Your task to perform on an android device: Go to internet settings Image 0: 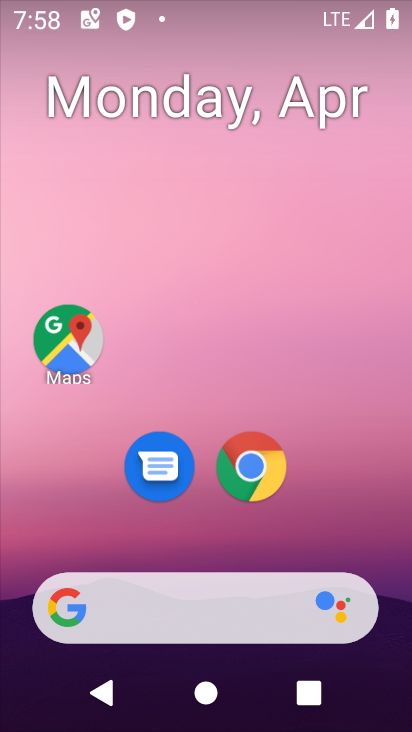
Step 0: press home button
Your task to perform on an android device: Go to internet settings Image 1: 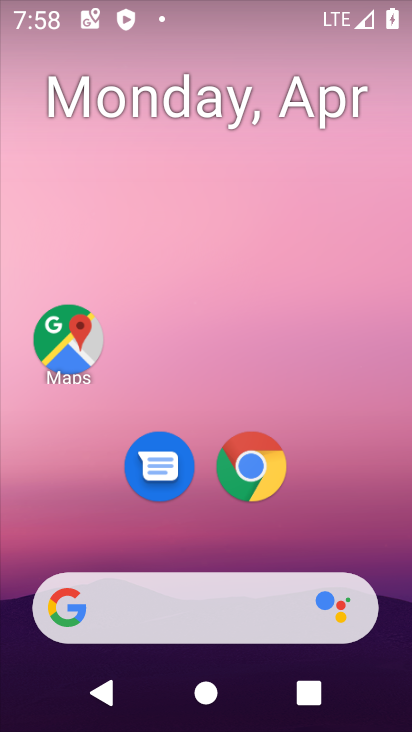
Step 1: click (160, 13)
Your task to perform on an android device: Go to internet settings Image 2: 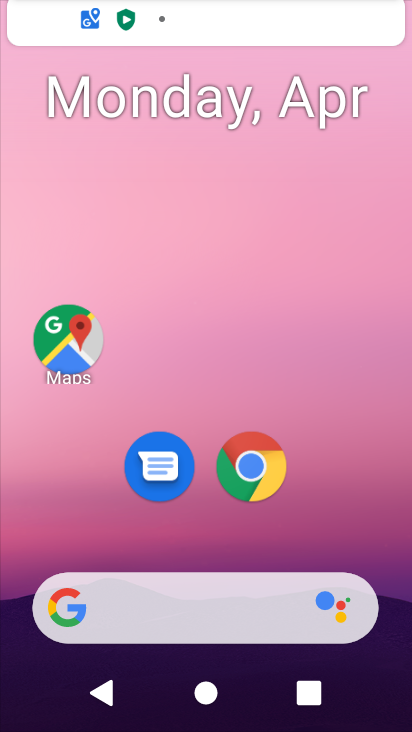
Step 2: click (319, 506)
Your task to perform on an android device: Go to internet settings Image 3: 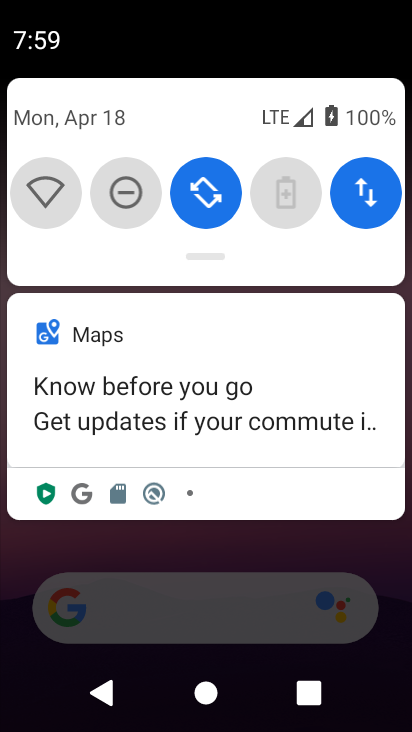
Step 3: drag from (230, 538) to (317, 92)
Your task to perform on an android device: Go to internet settings Image 4: 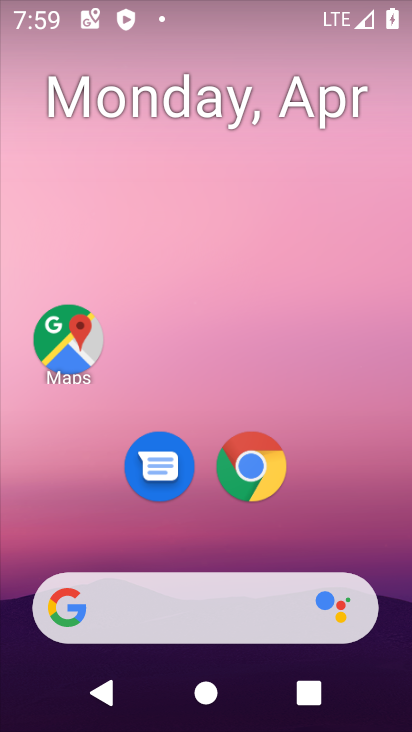
Step 4: drag from (220, 422) to (230, 2)
Your task to perform on an android device: Go to internet settings Image 5: 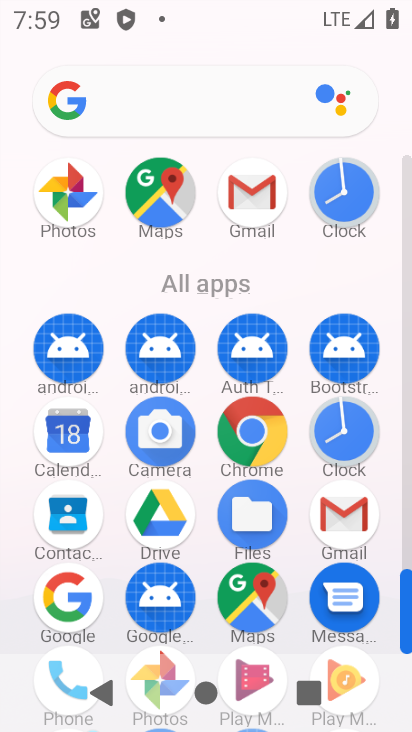
Step 5: drag from (212, 638) to (204, 202)
Your task to perform on an android device: Go to internet settings Image 6: 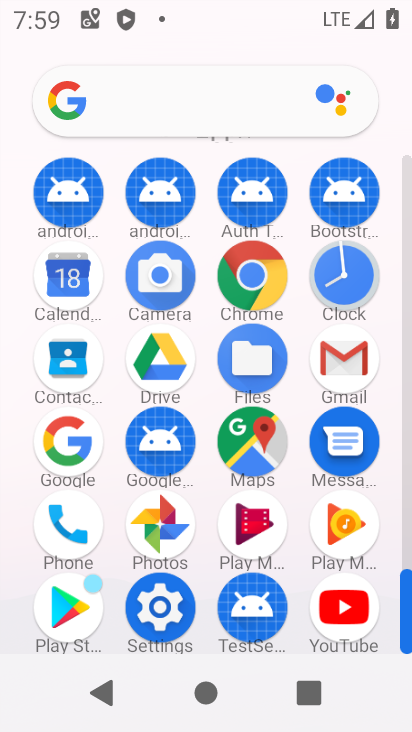
Step 6: click (160, 610)
Your task to perform on an android device: Go to internet settings Image 7: 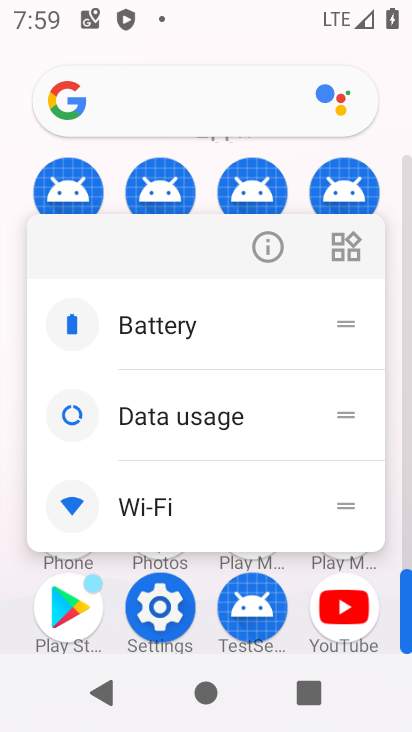
Step 7: click (260, 234)
Your task to perform on an android device: Go to internet settings Image 8: 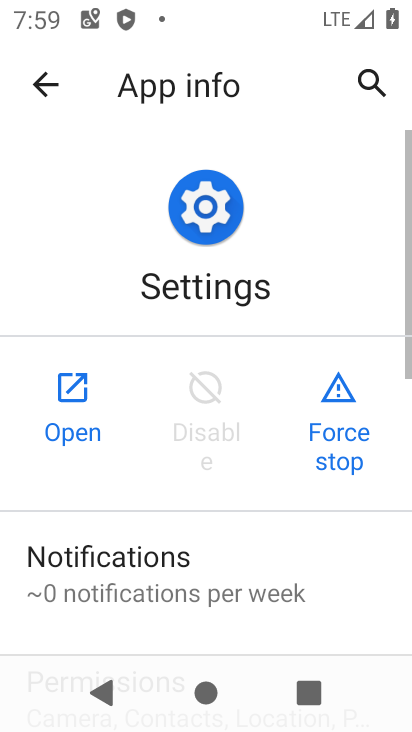
Step 8: click (86, 394)
Your task to perform on an android device: Go to internet settings Image 9: 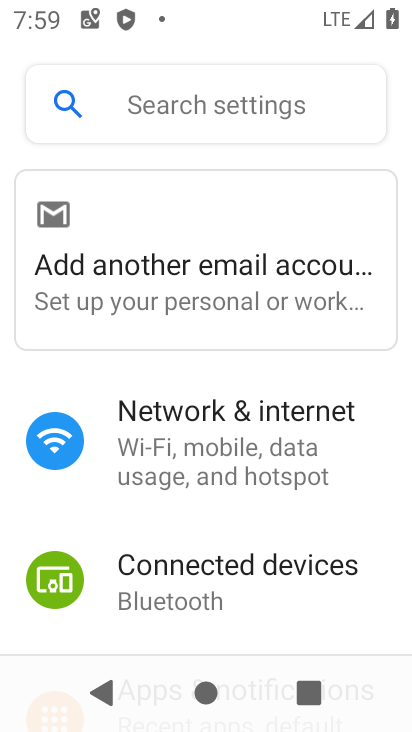
Step 9: drag from (248, 587) to (252, 220)
Your task to perform on an android device: Go to internet settings Image 10: 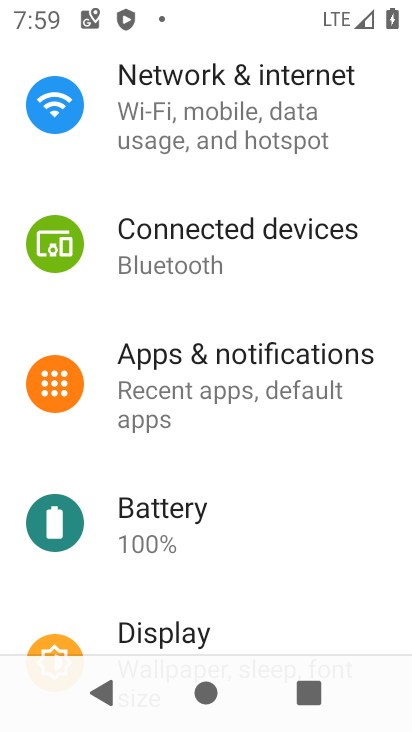
Step 10: drag from (190, 598) to (158, 61)
Your task to perform on an android device: Go to internet settings Image 11: 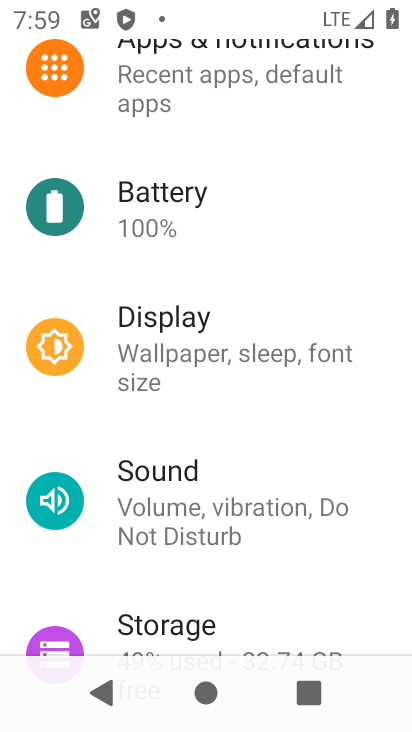
Step 11: drag from (224, 135) to (316, 695)
Your task to perform on an android device: Go to internet settings Image 12: 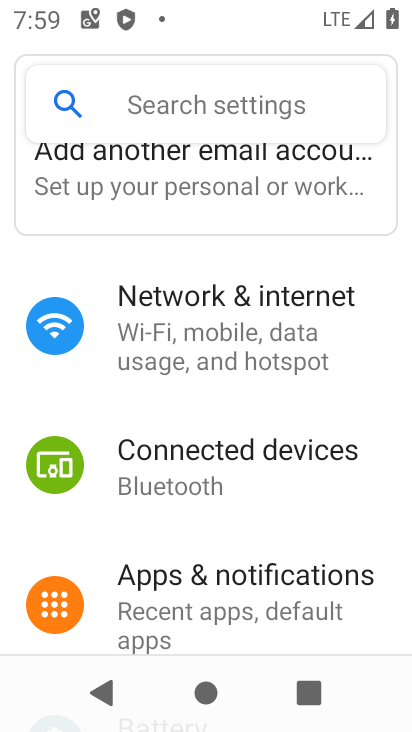
Step 12: click (224, 330)
Your task to perform on an android device: Go to internet settings Image 13: 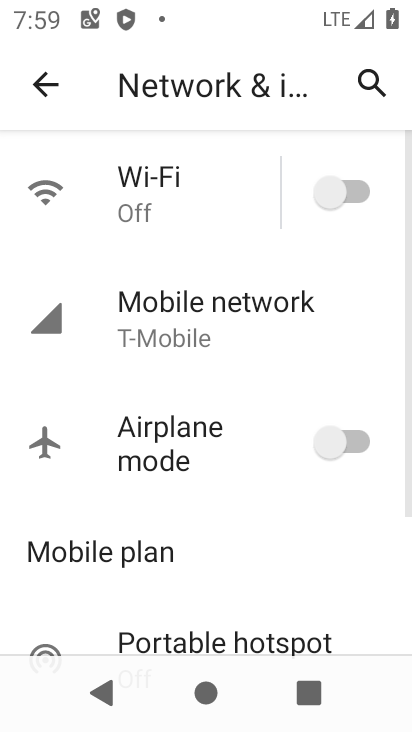
Step 13: drag from (282, 643) to (316, 254)
Your task to perform on an android device: Go to internet settings Image 14: 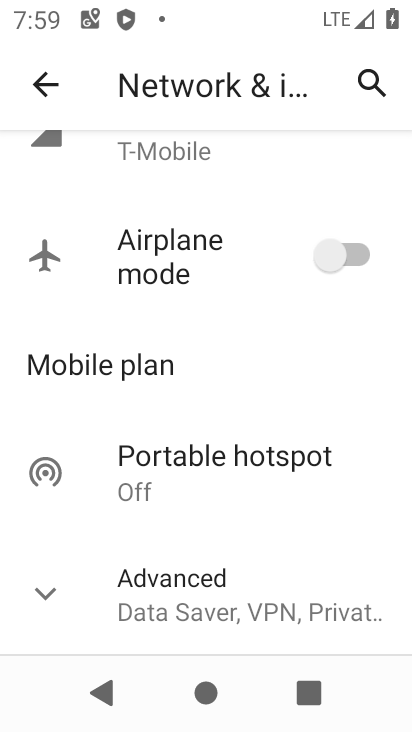
Step 14: drag from (164, 173) to (260, 580)
Your task to perform on an android device: Go to internet settings Image 15: 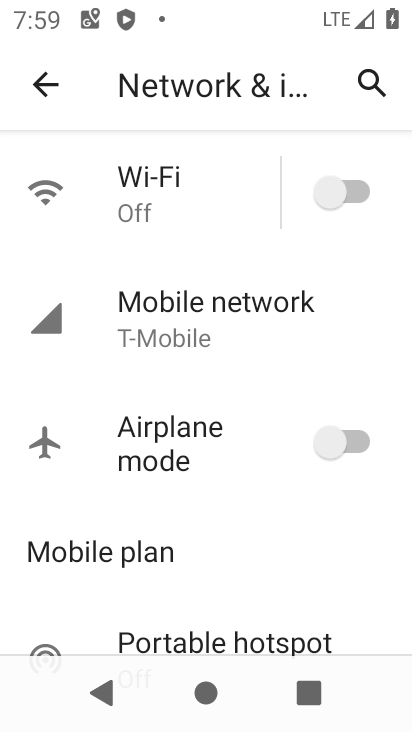
Step 15: click (140, 318)
Your task to perform on an android device: Go to internet settings Image 16: 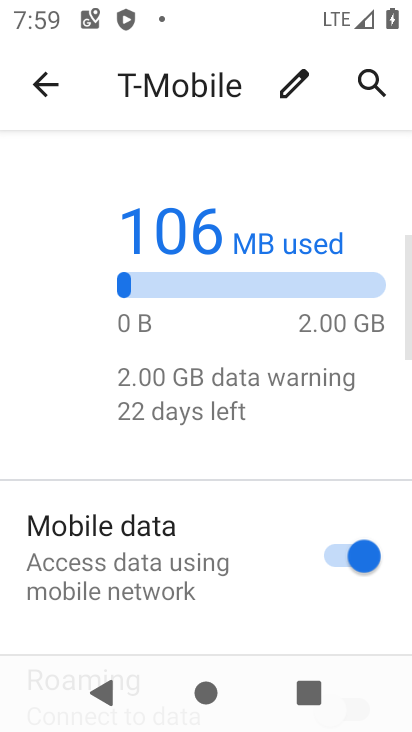
Step 16: drag from (273, 607) to (303, 210)
Your task to perform on an android device: Go to internet settings Image 17: 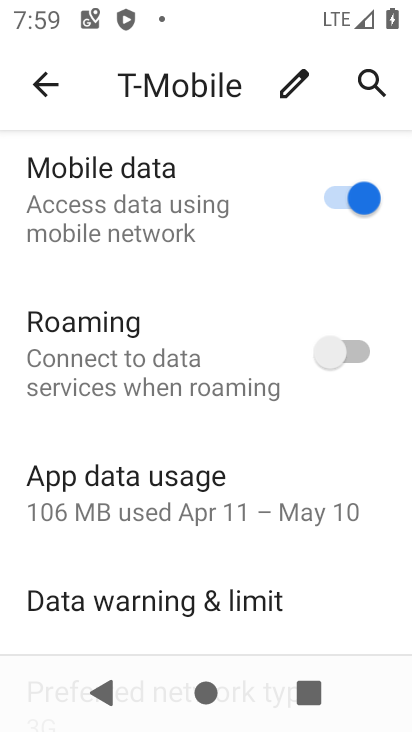
Step 17: drag from (211, 607) to (225, 193)
Your task to perform on an android device: Go to internet settings Image 18: 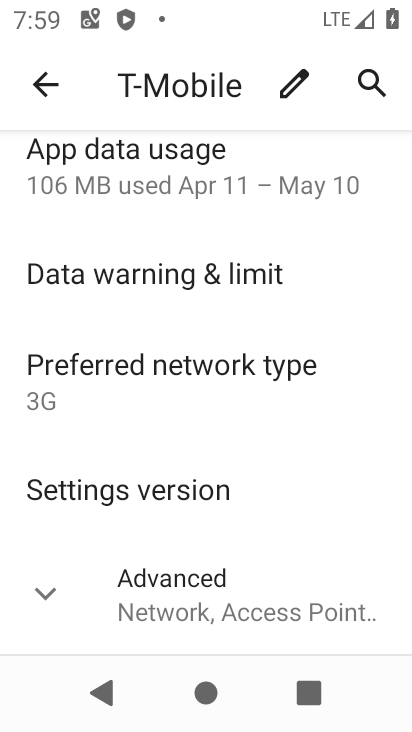
Step 18: drag from (236, 613) to (193, 359)
Your task to perform on an android device: Go to internet settings Image 19: 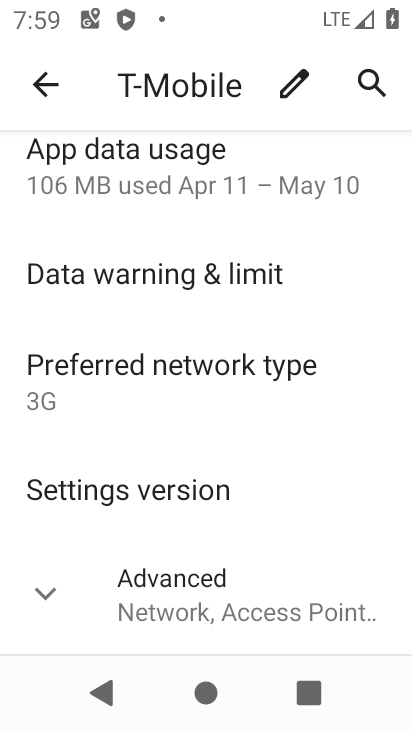
Step 19: click (149, 179)
Your task to perform on an android device: Go to internet settings Image 20: 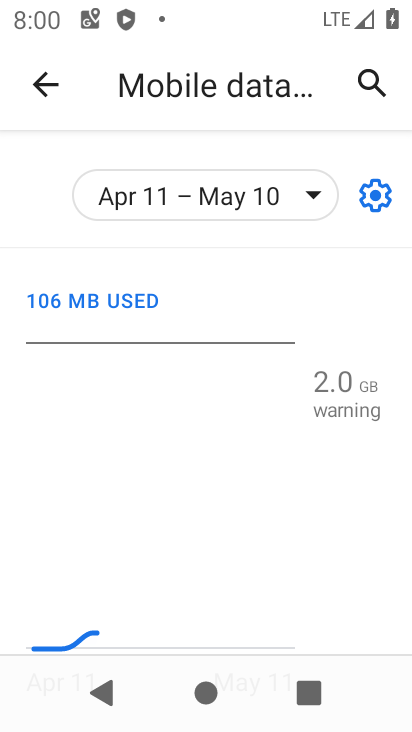
Step 20: task complete